Your task to perform on an android device: Go to Maps Image 0: 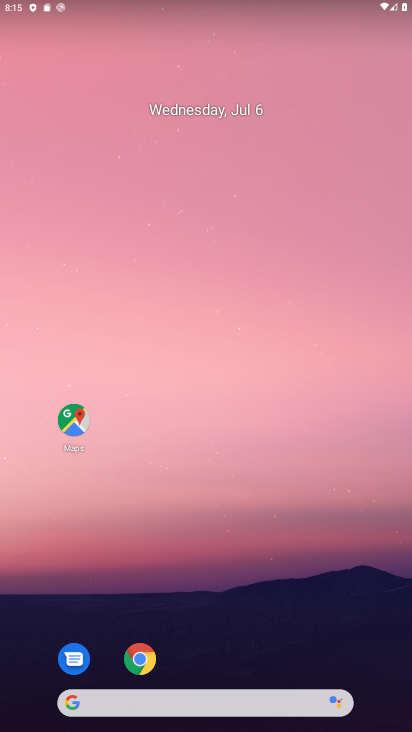
Step 0: drag from (210, 673) to (199, 79)
Your task to perform on an android device: Go to Maps Image 1: 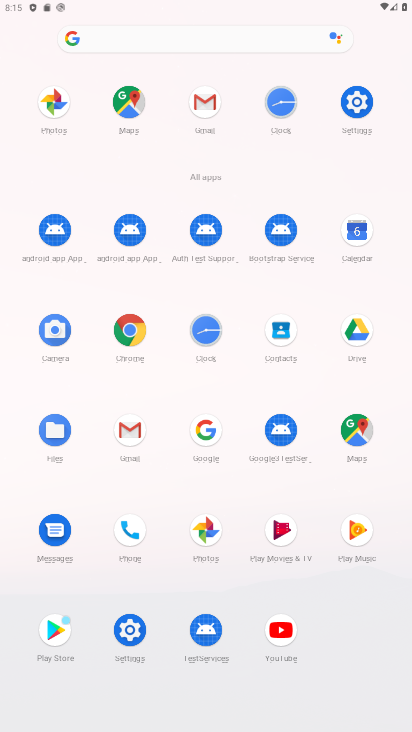
Step 1: click (127, 99)
Your task to perform on an android device: Go to Maps Image 2: 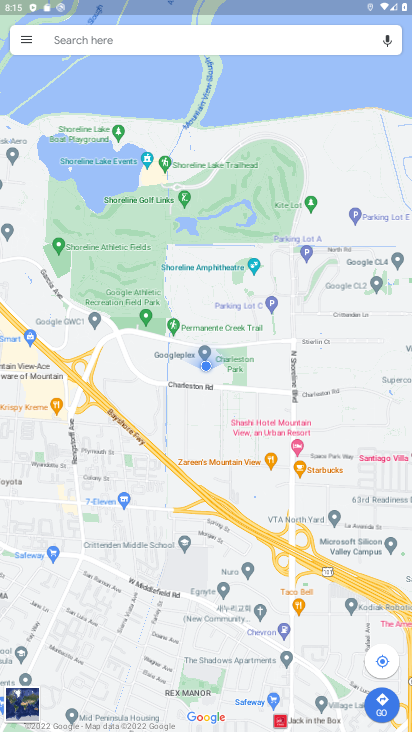
Step 2: task complete